Your task to perform on an android device: Open sound settings Image 0: 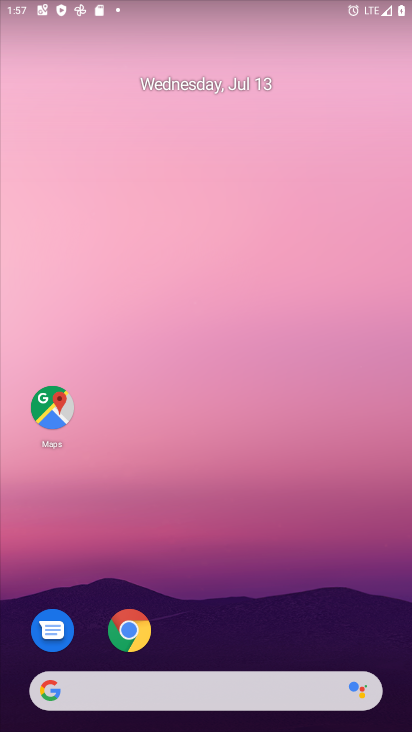
Step 0: drag from (389, 707) to (320, 19)
Your task to perform on an android device: Open sound settings Image 1: 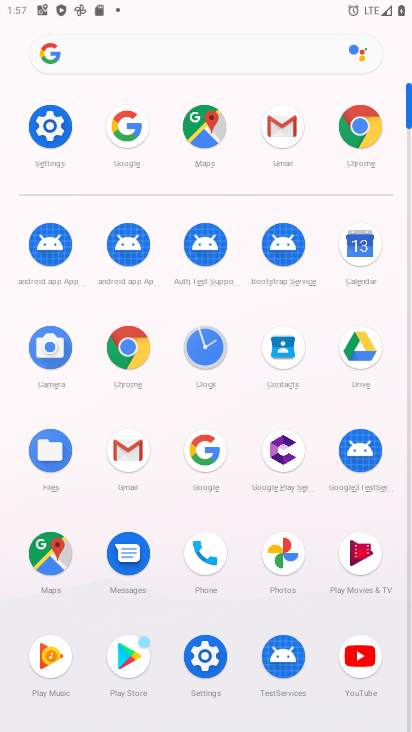
Step 1: click (209, 670)
Your task to perform on an android device: Open sound settings Image 2: 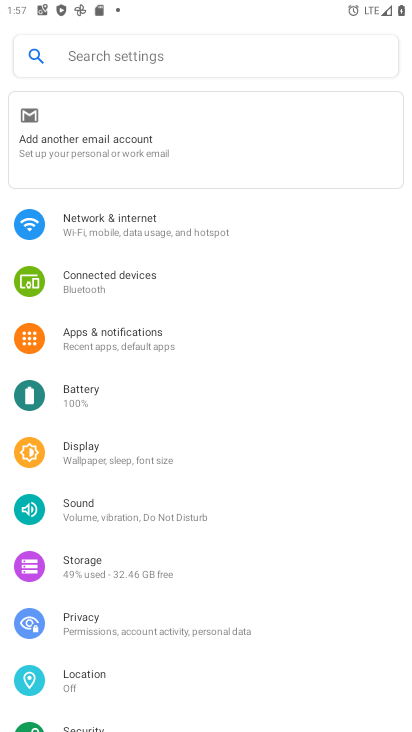
Step 2: click (69, 519)
Your task to perform on an android device: Open sound settings Image 3: 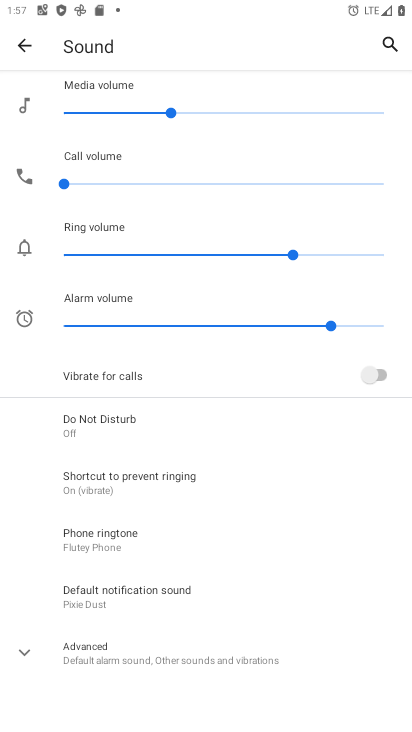
Step 3: task complete